Your task to perform on an android device: Open Google Chrome and click the shortcut for Amazon.com Image 0: 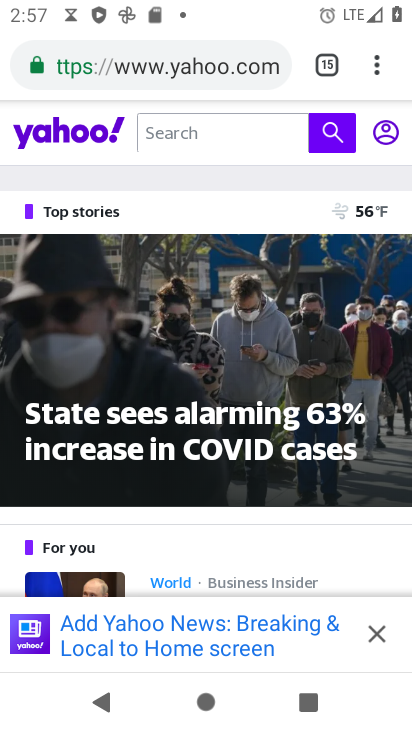
Step 0: press home button
Your task to perform on an android device: Open Google Chrome and click the shortcut for Amazon.com Image 1: 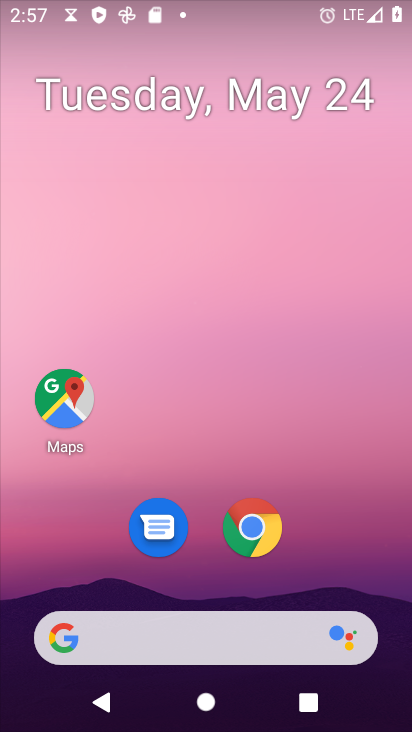
Step 1: click (254, 539)
Your task to perform on an android device: Open Google Chrome and click the shortcut for Amazon.com Image 2: 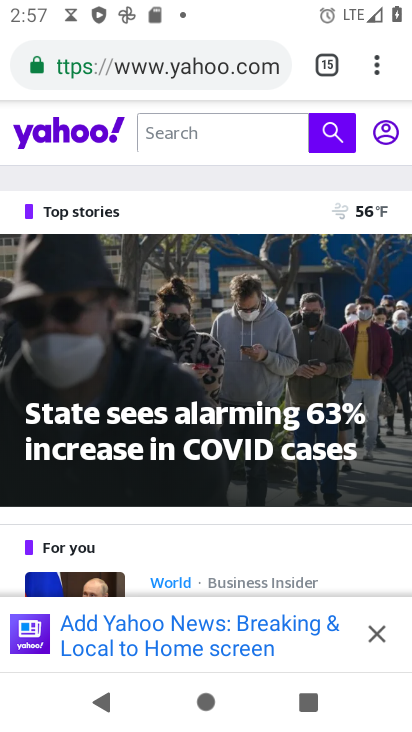
Step 2: drag from (379, 69) to (300, 134)
Your task to perform on an android device: Open Google Chrome and click the shortcut for Amazon.com Image 3: 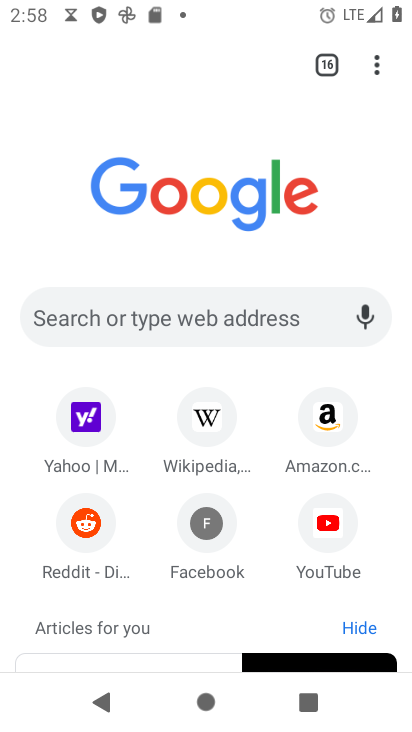
Step 3: click (342, 433)
Your task to perform on an android device: Open Google Chrome and click the shortcut for Amazon.com Image 4: 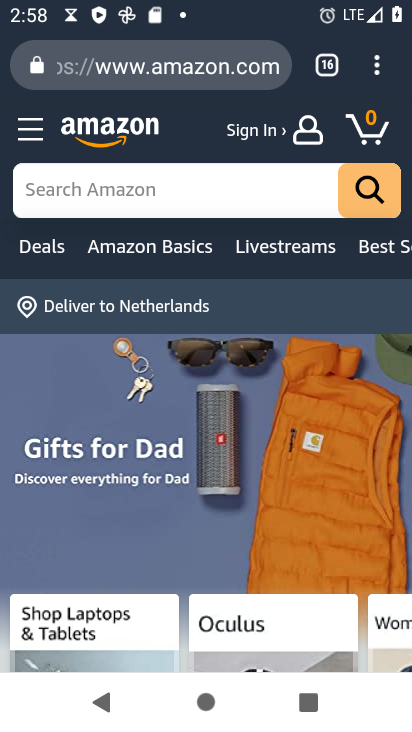
Step 4: task complete